Your task to perform on an android device: turn on improve location accuracy Image 0: 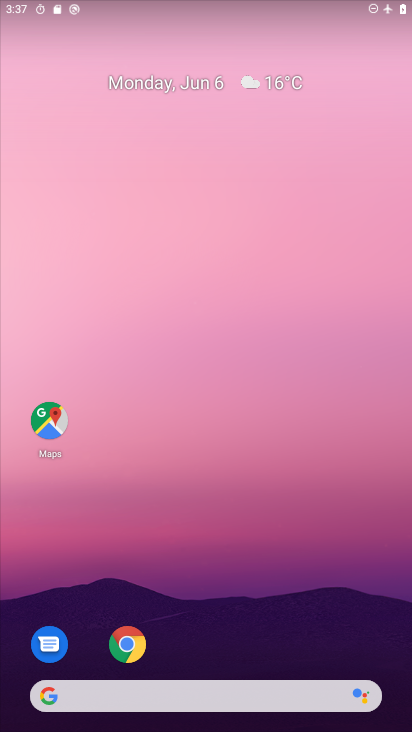
Step 0: drag from (272, 620) to (252, 32)
Your task to perform on an android device: turn on improve location accuracy Image 1: 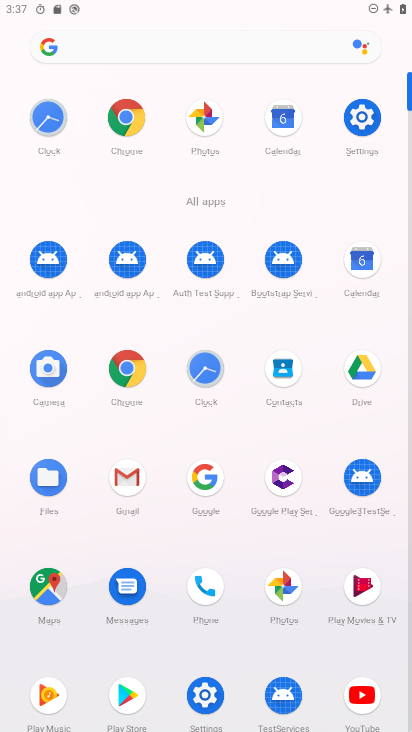
Step 1: click (361, 117)
Your task to perform on an android device: turn on improve location accuracy Image 2: 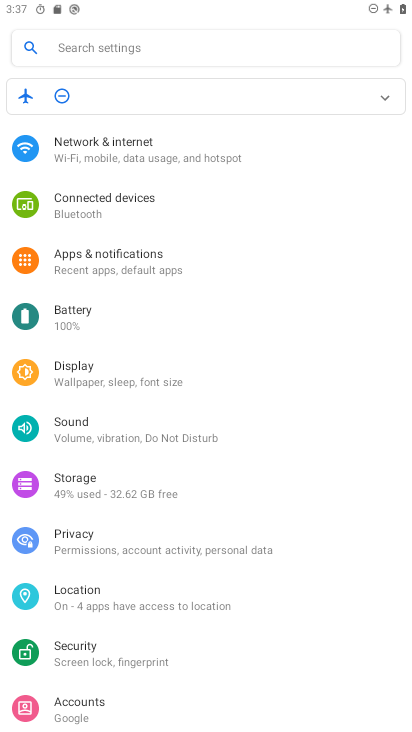
Step 2: click (84, 592)
Your task to perform on an android device: turn on improve location accuracy Image 3: 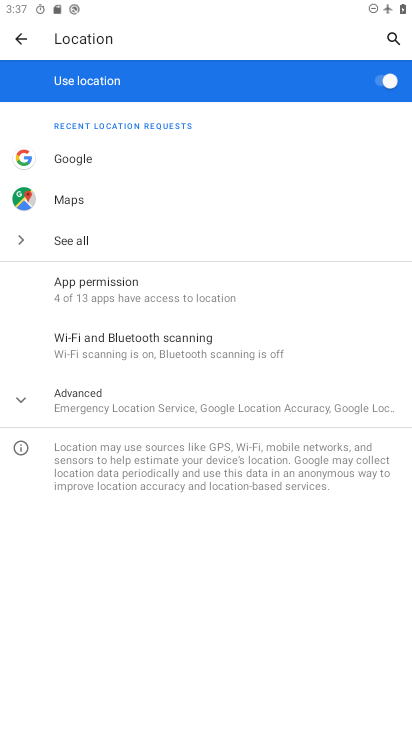
Step 3: click (110, 409)
Your task to perform on an android device: turn on improve location accuracy Image 4: 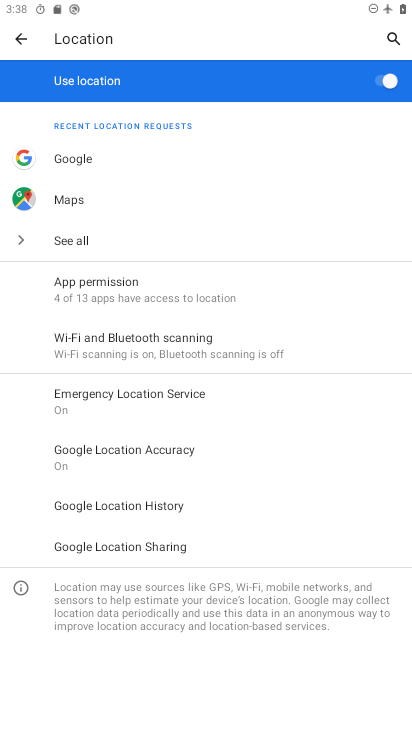
Step 4: click (158, 447)
Your task to perform on an android device: turn on improve location accuracy Image 5: 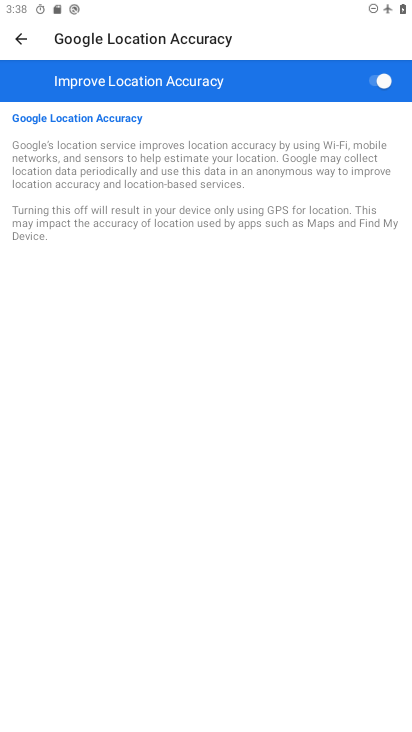
Step 5: task complete